Your task to perform on an android device: Go to network settings Image 0: 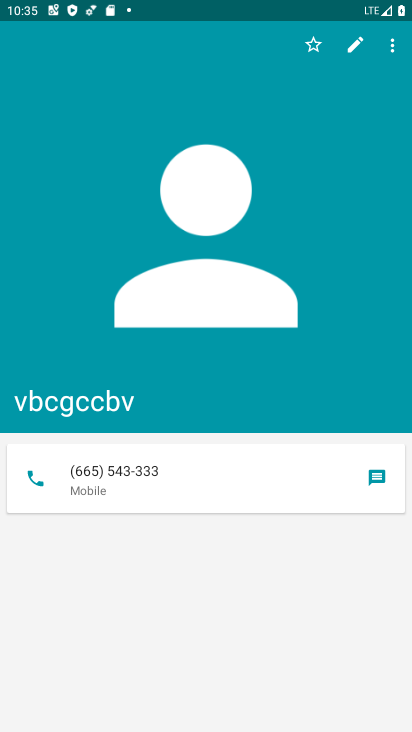
Step 0: press home button
Your task to perform on an android device: Go to network settings Image 1: 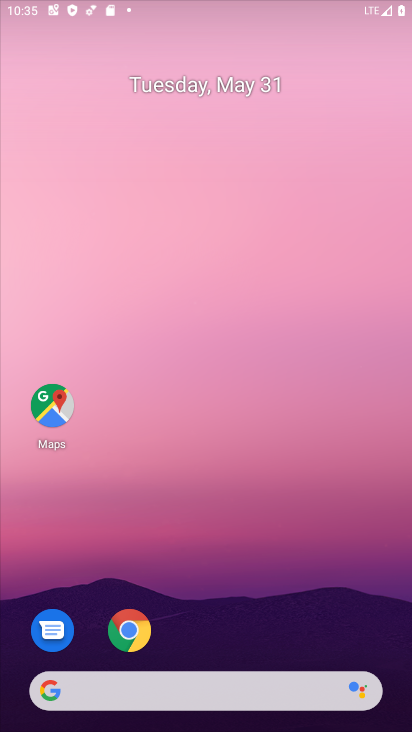
Step 1: drag from (342, 593) to (291, 58)
Your task to perform on an android device: Go to network settings Image 2: 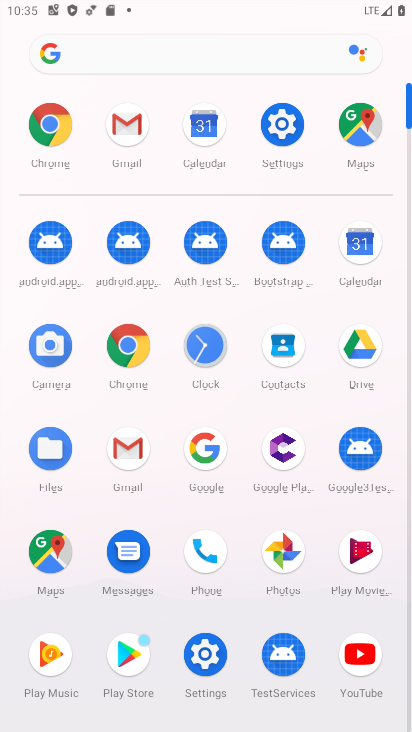
Step 2: click (285, 122)
Your task to perform on an android device: Go to network settings Image 3: 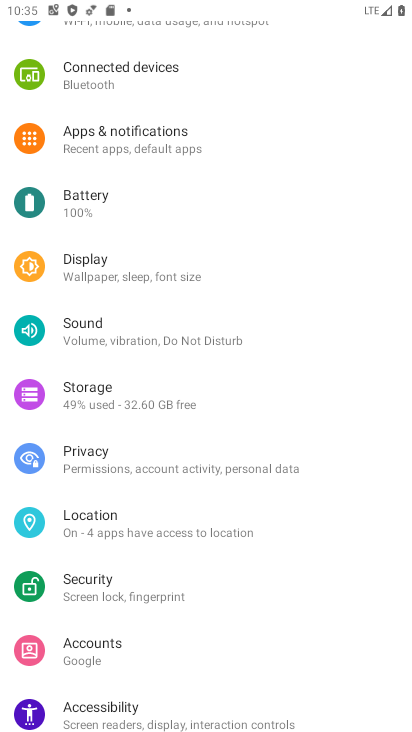
Step 3: drag from (362, 153) to (385, 432)
Your task to perform on an android device: Go to network settings Image 4: 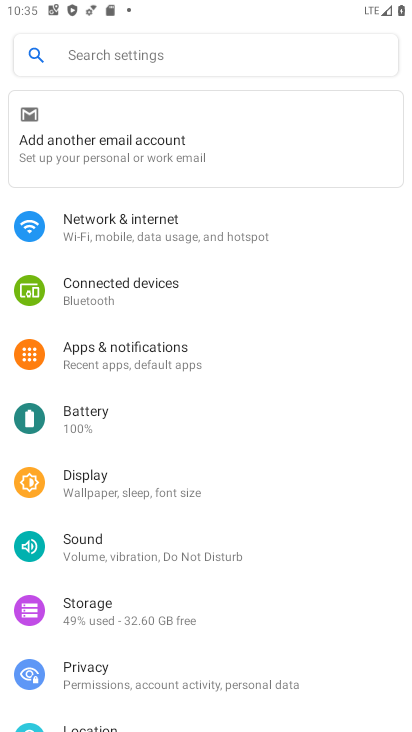
Step 4: click (156, 224)
Your task to perform on an android device: Go to network settings Image 5: 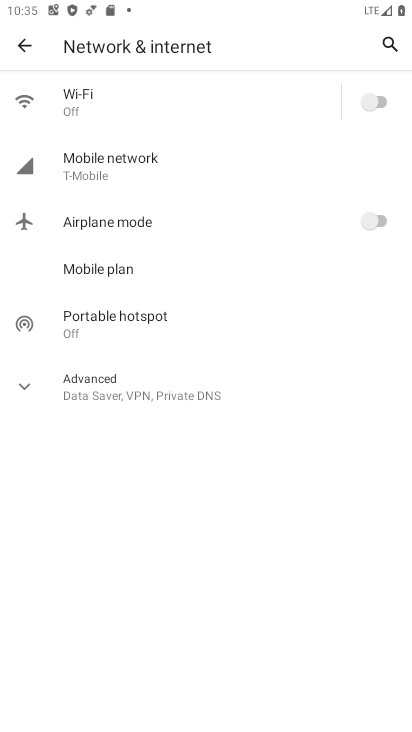
Step 5: click (142, 162)
Your task to perform on an android device: Go to network settings Image 6: 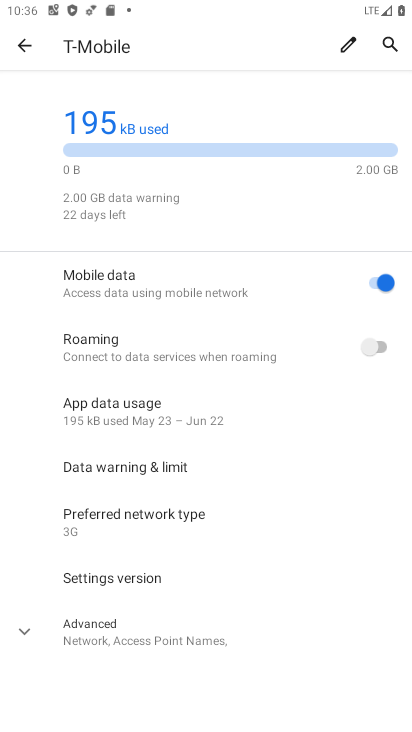
Step 6: task complete